Your task to perform on an android device: Open Yahoo.com Image 0: 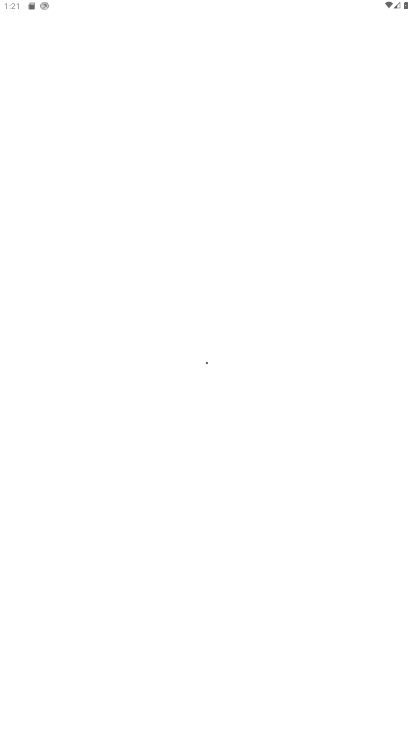
Step 0: press home button
Your task to perform on an android device: Open Yahoo.com Image 1: 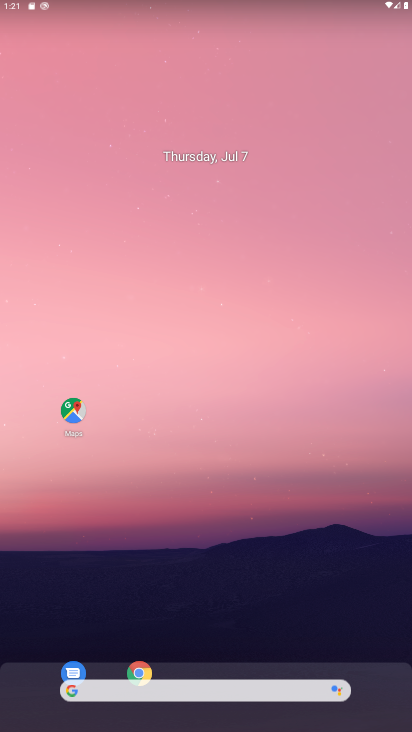
Step 1: click (149, 671)
Your task to perform on an android device: Open Yahoo.com Image 2: 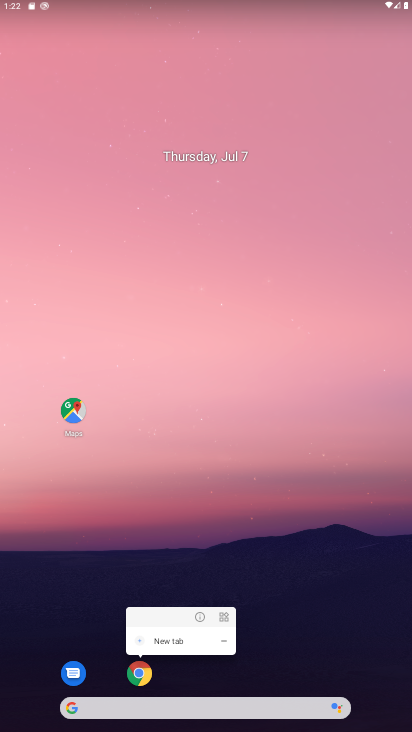
Step 2: click (146, 670)
Your task to perform on an android device: Open Yahoo.com Image 3: 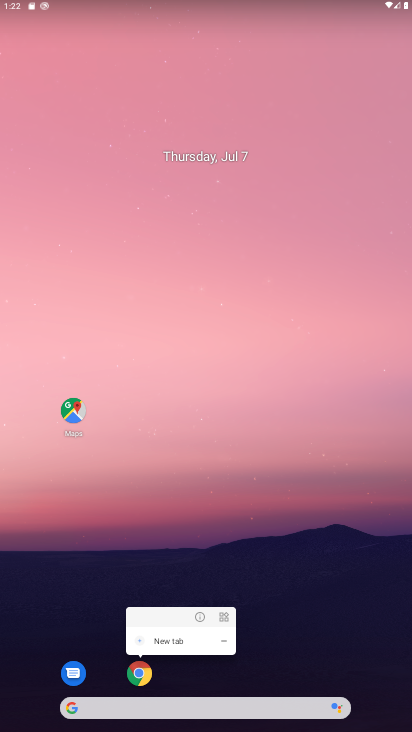
Step 3: click (146, 671)
Your task to perform on an android device: Open Yahoo.com Image 4: 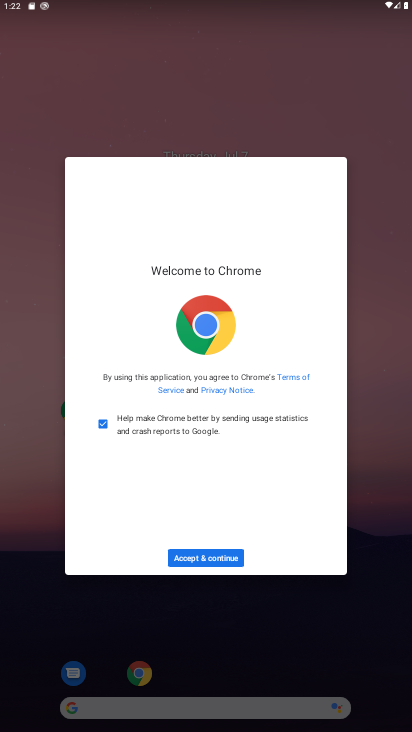
Step 4: click (202, 567)
Your task to perform on an android device: Open Yahoo.com Image 5: 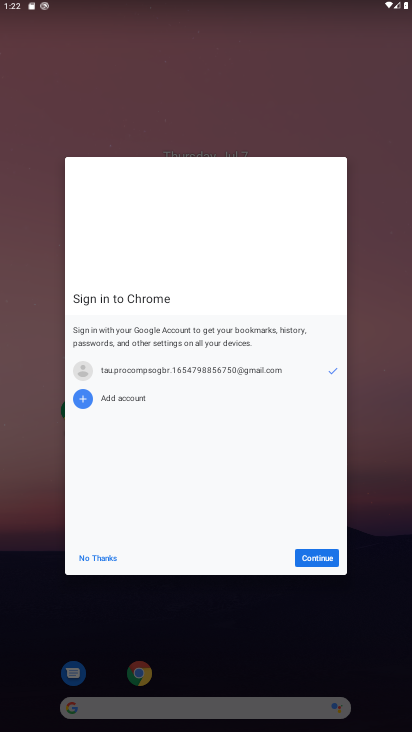
Step 5: click (316, 551)
Your task to perform on an android device: Open Yahoo.com Image 6: 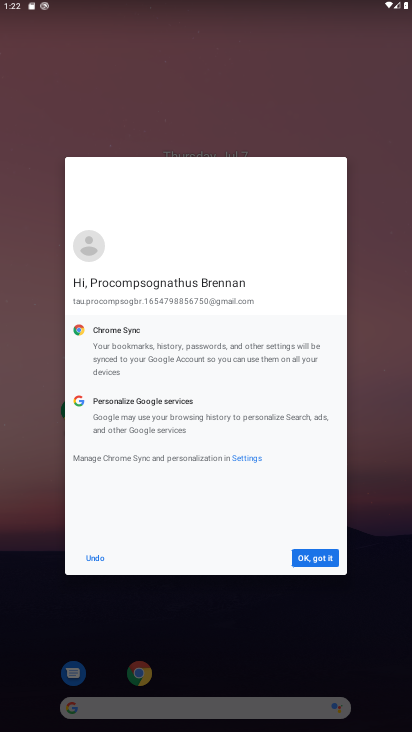
Step 6: click (308, 556)
Your task to perform on an android device: Open Yahoo.com Image 7: 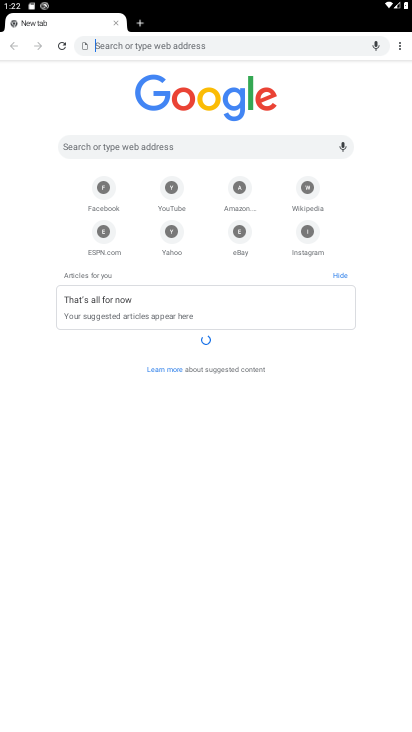
Step 7: click (176, 237)
Your task to perform on an android device: Open Yahoo.com Image 8: 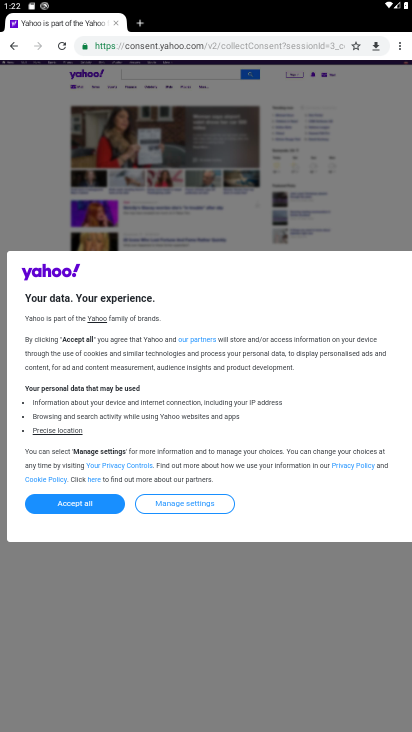
Step 8: click (87, 502)
Your task to perform on an android device: Open Yahoo.com Image 9: 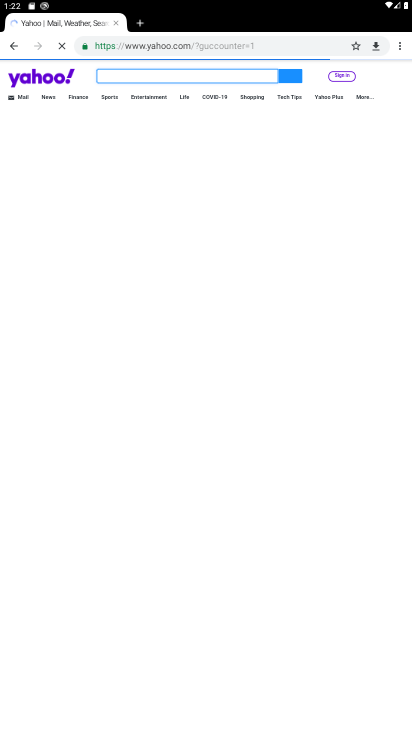
Step 9: task complete